Your task to perform on an android device: Clear the shopping cart on costco.com. Add "macbook" to the cart on costco.com, then select checkout. Image 0: 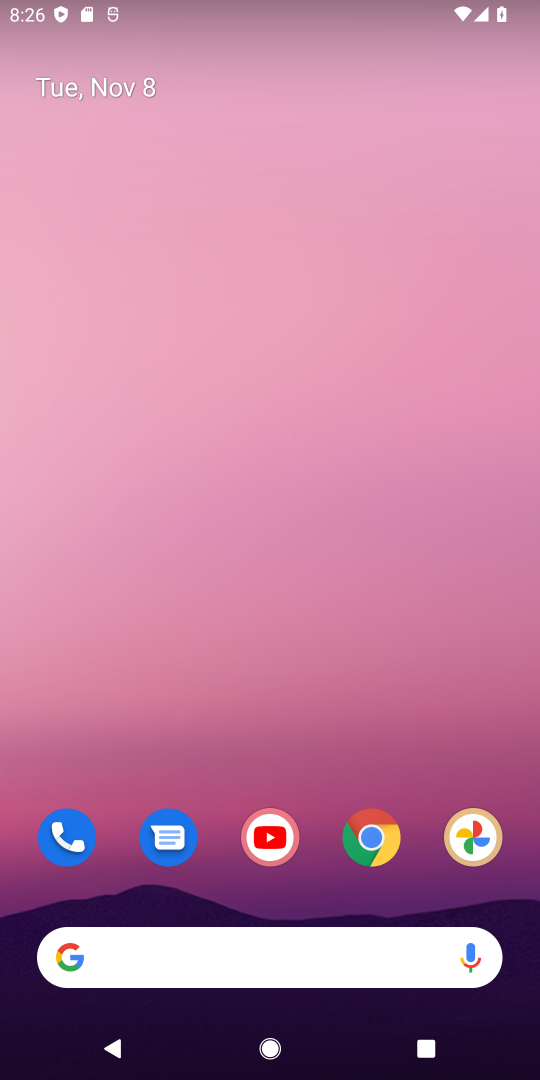
Step 0: click (366, 844)
Your task to perform on an android device: Clear the shopping cart on costco.com. Add "macbook" to the cart on costco.com, then select checkout. Image 1: 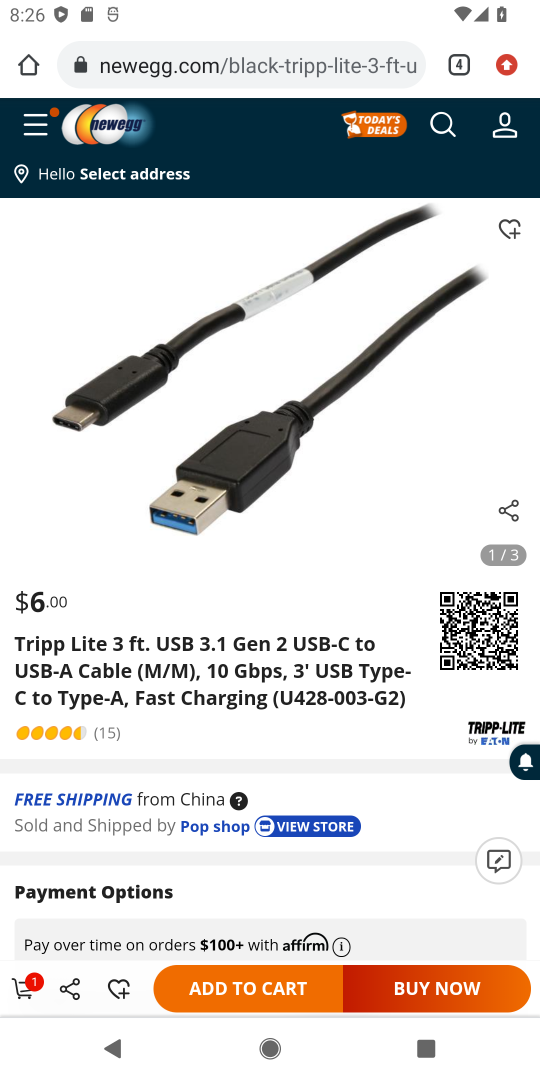
Step 1: click (452, 59)
Your task to perform on an android device: Clear the shopping cart on costco.com. Add "macbook" to the cart on costco.com, then select checkout. Image 2: 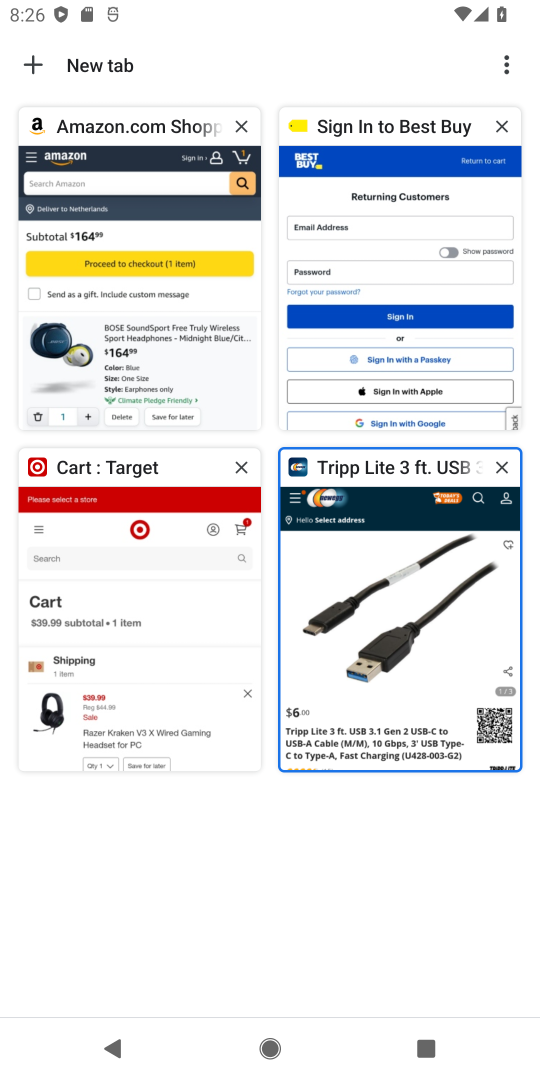
Step 2: click (28, 62)
Your task to perform on an android device: Clear the shopping cart on costco.com. Add "macbook" to the cart on costco.com, then select checkout. Image 3: 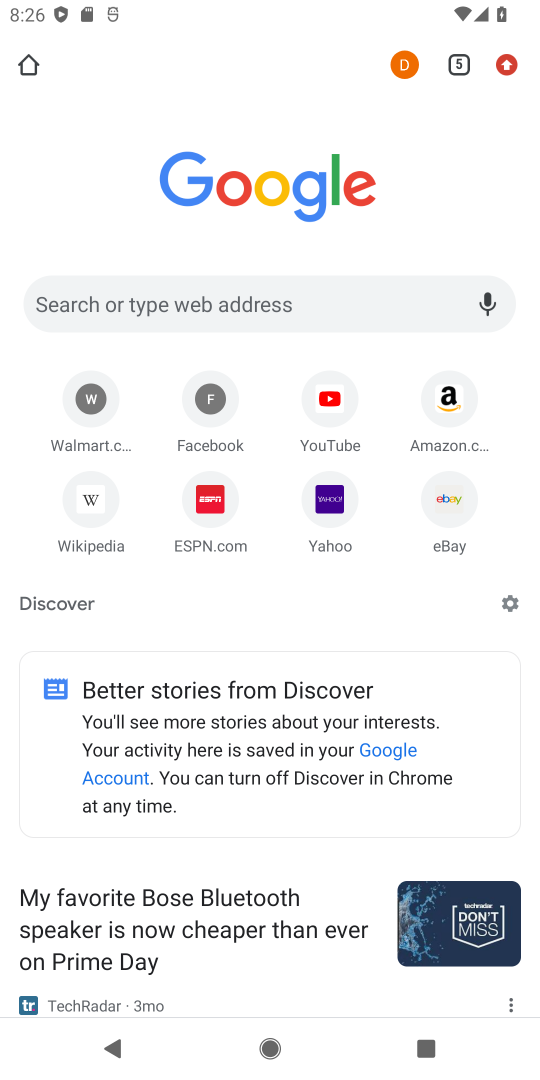
Step 3: click (276, 296)
Your task to perform on an android device: Clear the shopping cart on costco.com. Add "macbook" to the cart on costco.com, then select checkout. Image 4: 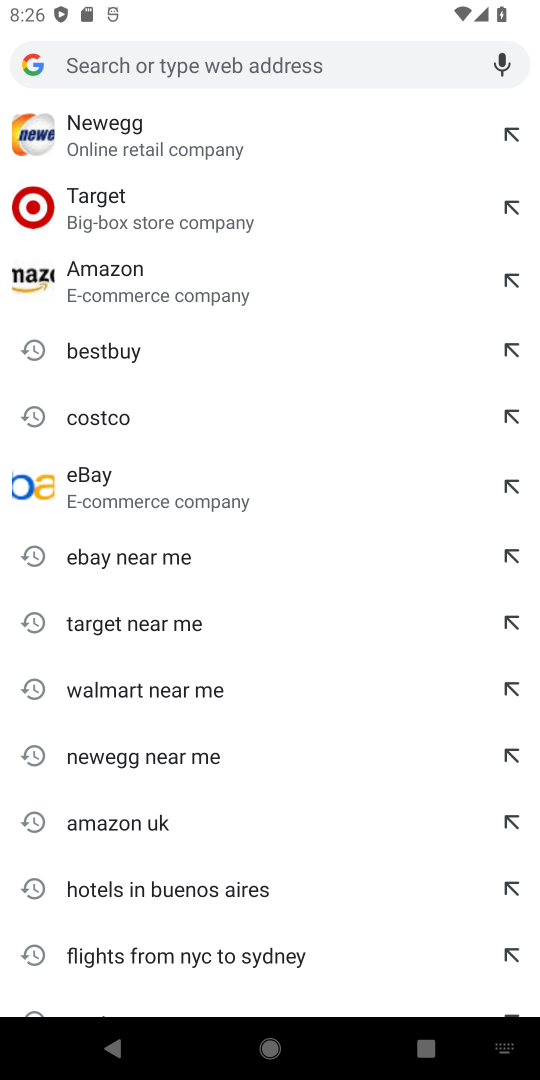
Step 4: click (102, 420)
Your task to perform on an android device: Clear the shopping cart on costco.com. Add "macbook" to the cart on costco.com, then select checkout. Image 5: 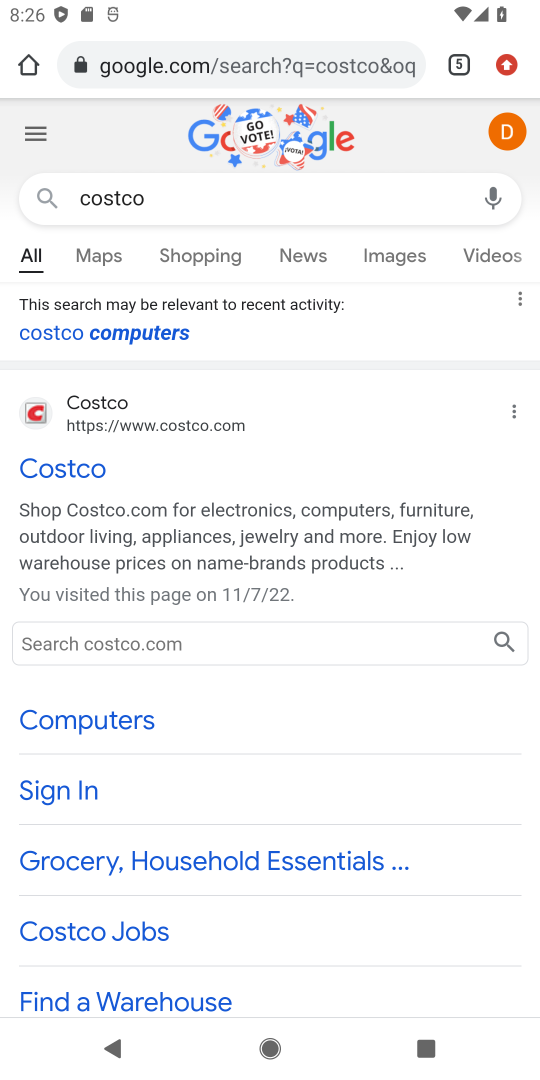
Step 5: click (71, 639)
Your task to perform on an android device: Clear the shopping cart on costco.com. Add "macbook" to the cart on costco.com, then select checkout. Image 6: 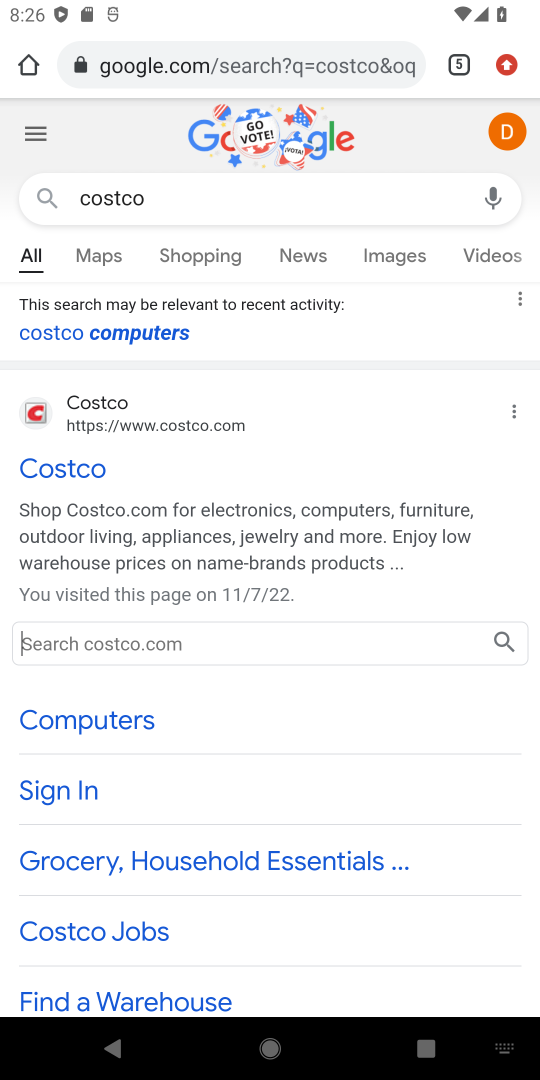
Step 6: type "macbook"
Your task to perform on an android device: Clear the shopping cart on costco.com. Add "macbook" to the cart on costco.com, then select checkout. Image 7: 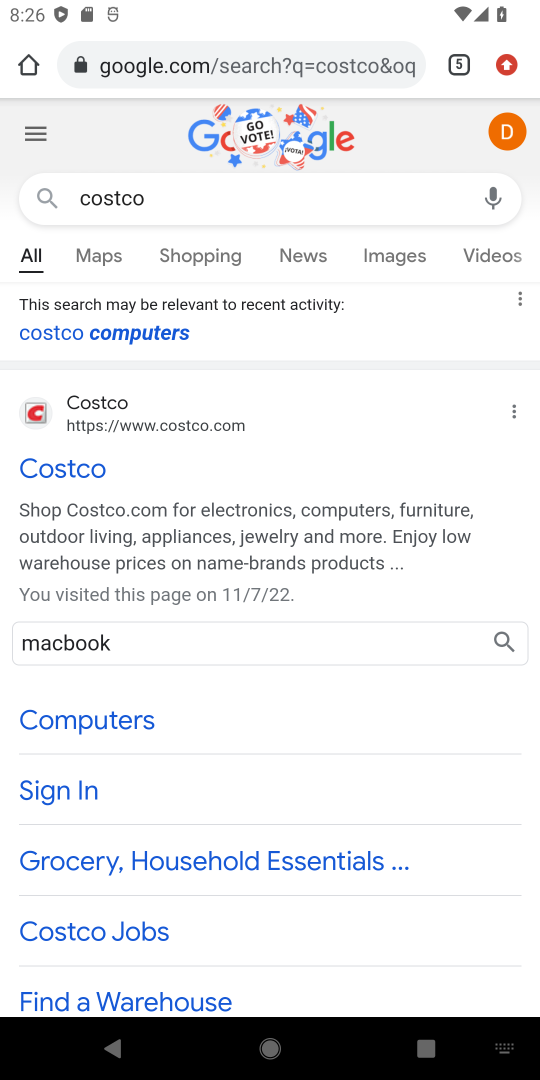
Step 7: click (509, 644)
Your task to perform on an android device: Clear the shopping cart on costco.com. Add "macbook" to the cart on costco.com, then select checkout. Image 8: 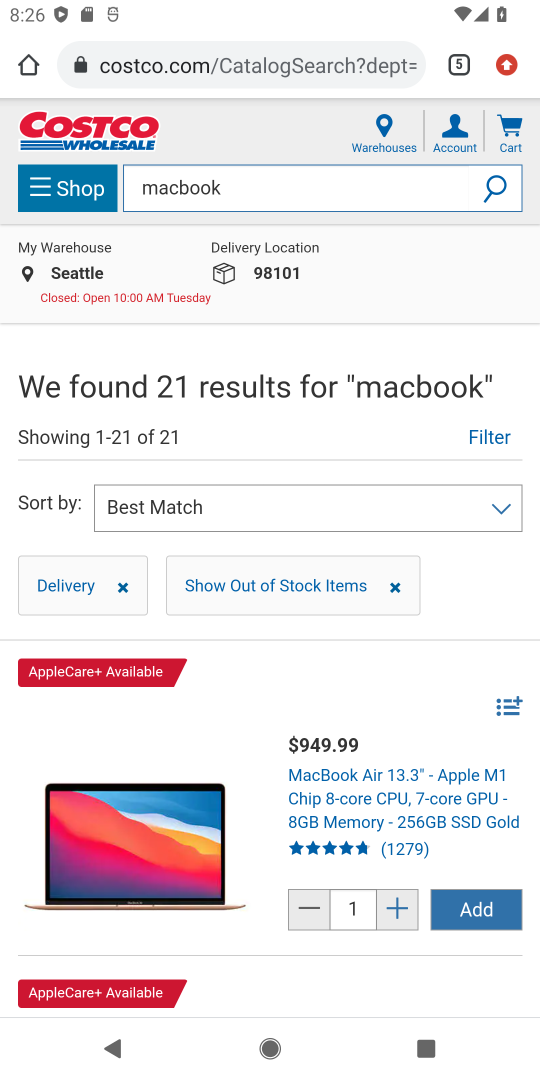
Step 8: click (471, 908)
Your task to perform on an android device: Clear the shopping cart on costco.com. Add "macbook" to the cart on costco.com, then select checkout. Image 9: 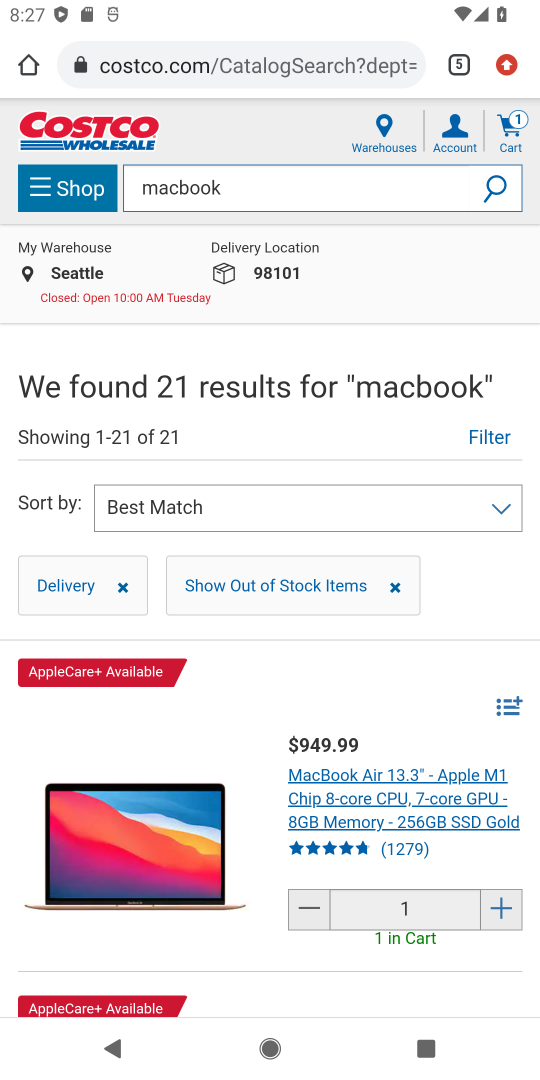
Step 9: click (503, 127)
Your task to perform on an android device: Clear the shopping cart on costco.com. Add "macbook" to the cart on costco.com, then select checkout. Image 10: 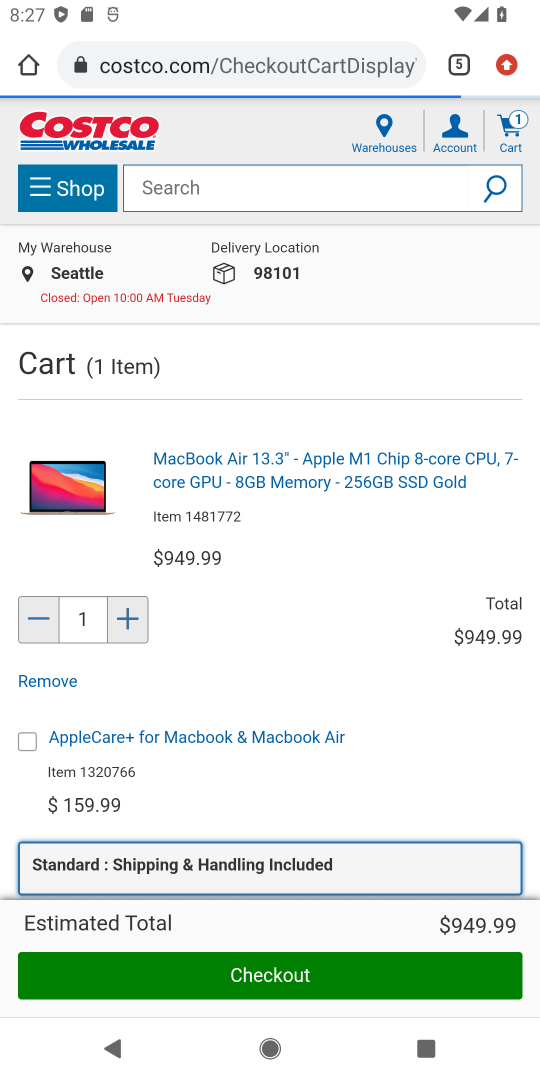
Step 10: click (285, 973)
Your task to perform on an android device: Clear the shopping cart on costco.com. Add "macbook" to the cart on costco.com, then select checkout. Image 11: 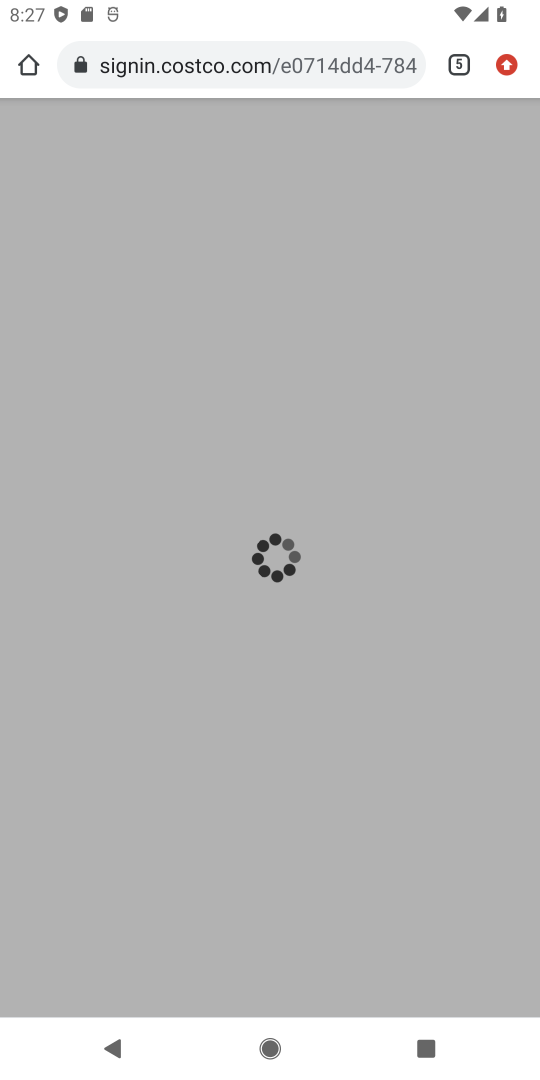
Step 11: task complete